Your task to perform on an android device: Open Chrome and go to the settings page Image 0: 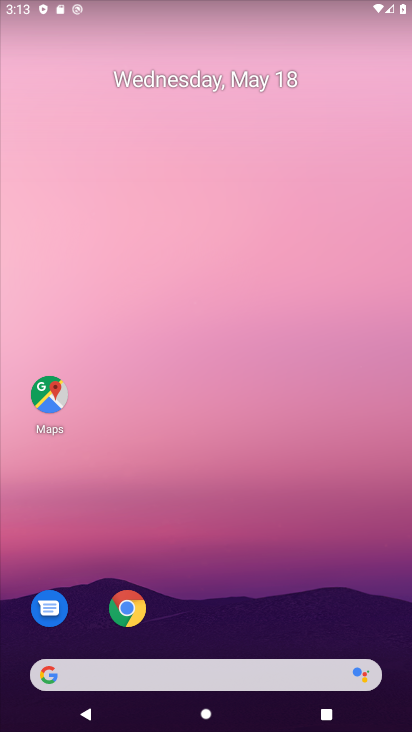
Step 0: click (127, 608)
Your task to perform on an android device: Open Chrome and go to the settings page Image 1: 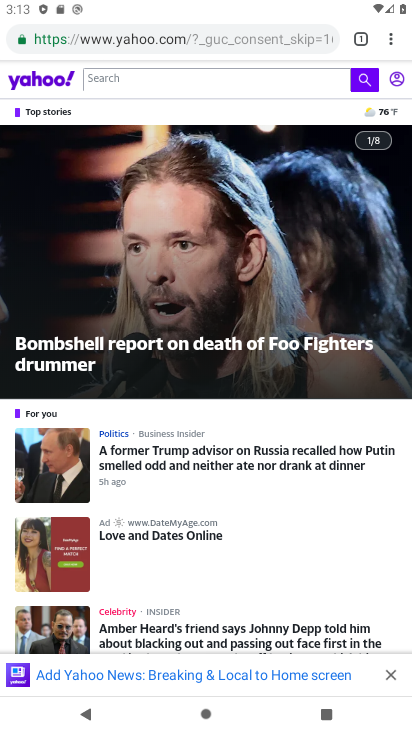
Step 1: click (381, 30)
Your task to perform on an android device: Open Chrome and go to the settings page Image 2: 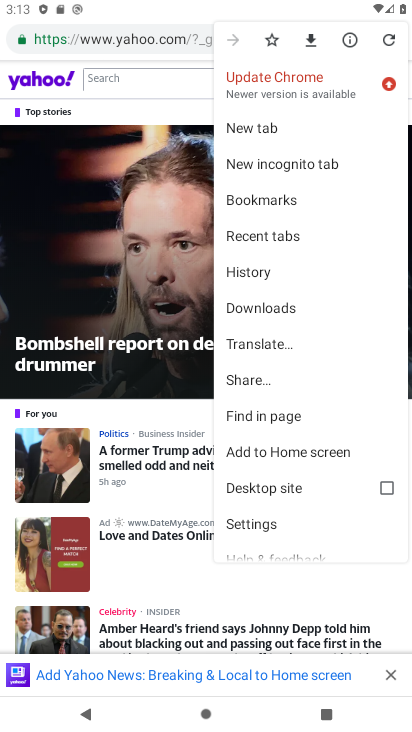
Step 2: click (244, 528)
Your task to perform on an android device: Open Chrome and go to the settings page Image 3: 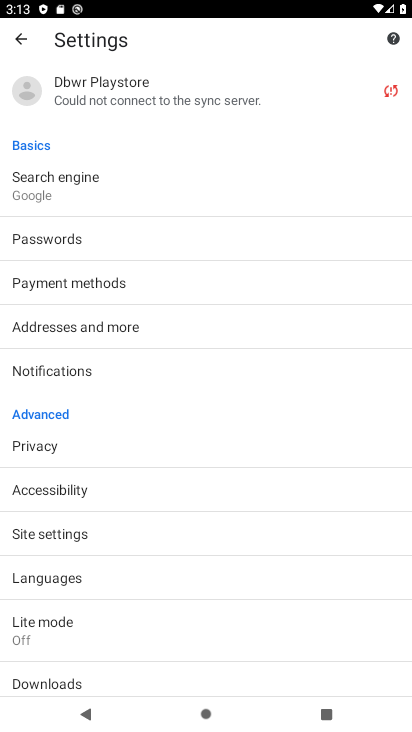
Step 3: task complete